Your task to perform on an android device: change alarm snooze length Image 0: 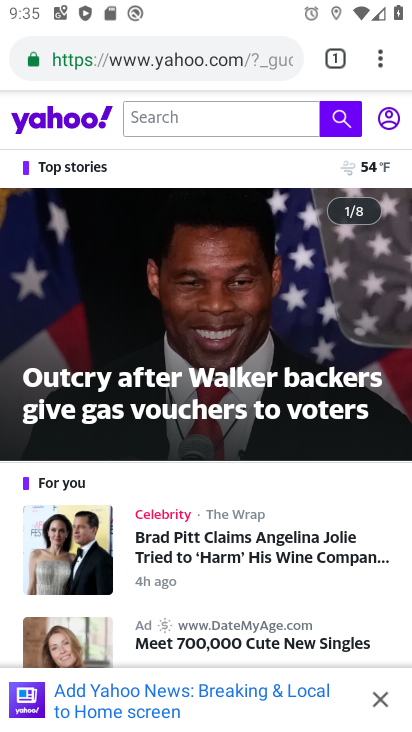
Step 0: press home button
Your task to perform on an android device: change alarm snooze length Image 1: 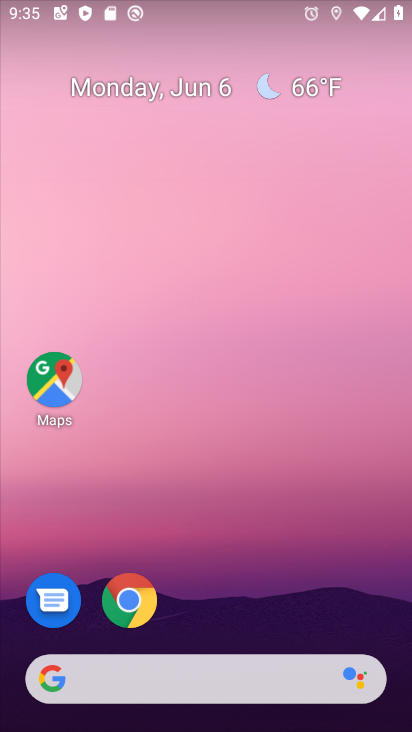
Step 1: drag from (28, 579) to (255, 185)
Your task to perform on an android device: change alarm snooze length Image 2: 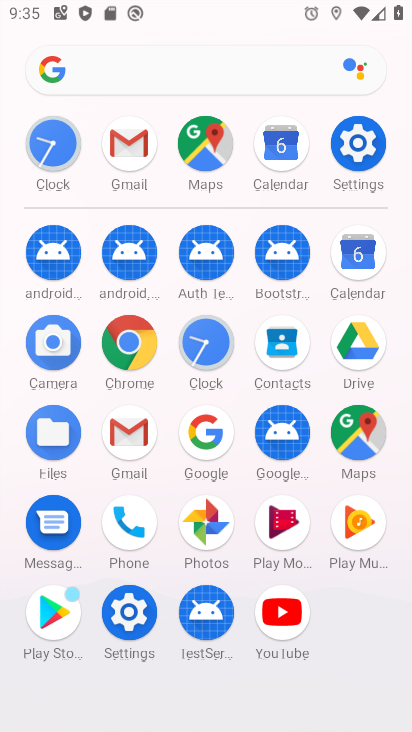
Step 2: click (213, 347)
Your task to perform on an android device: change alarm snooze length Image 3: 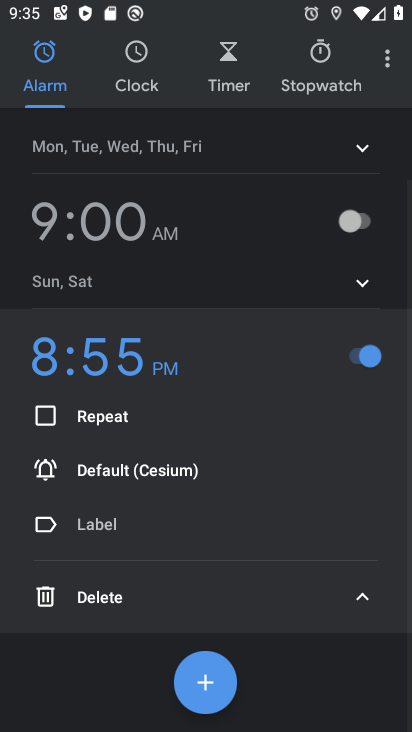
Step 3: click (388, 63)
Your task to perform on an android device: change alarm snooze length Image 4: 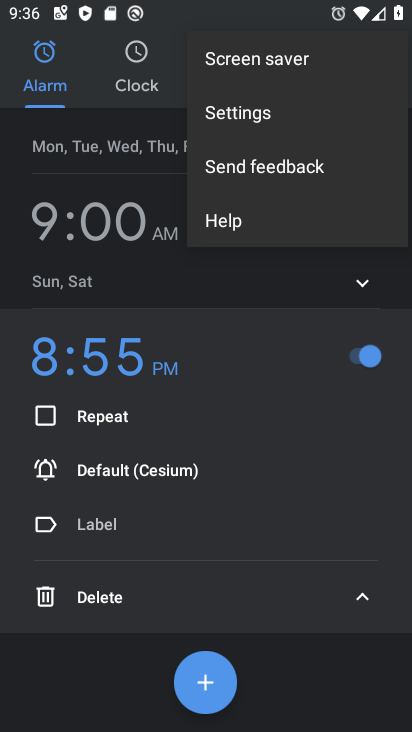
Step 4: click (272, 122)
Your task to perform on an android device: change alarm snooze length Image 5: 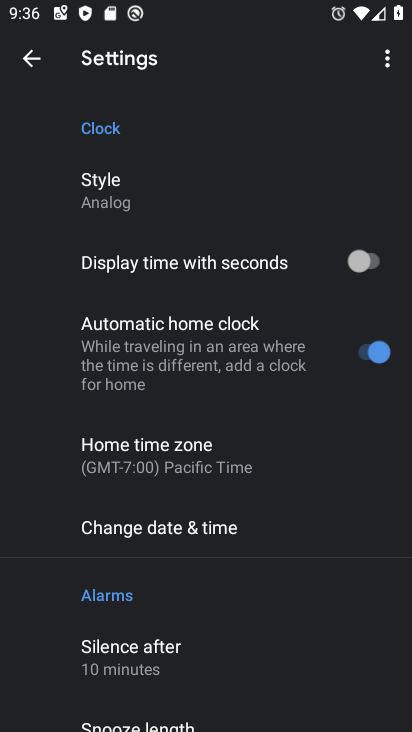
Step 5: drag from (4, 680) to (136, 203)
Your task to perform on an android device: change alarm snooze length Image 6: 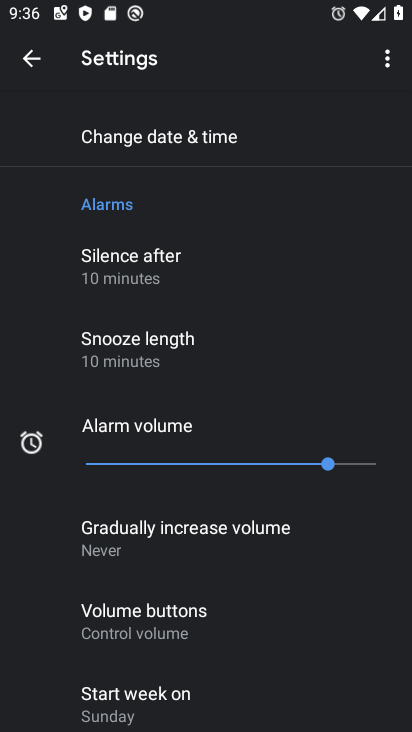
Step 6: click (85, 360)
Your task to perform on an android device: change alarm snooze length Image 7: 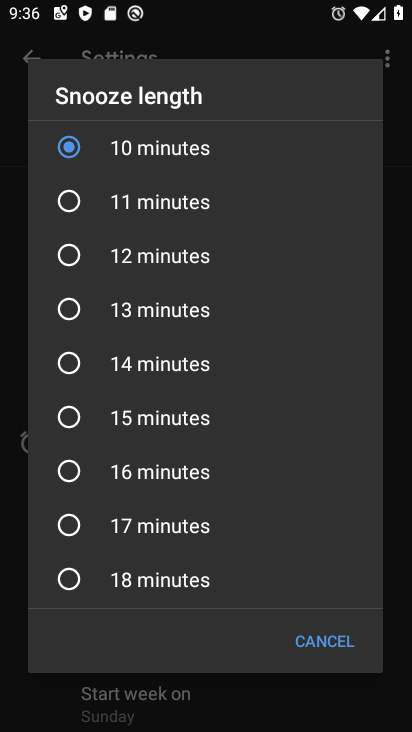
Step 7: click (114, 205)
Your task to perform on an android device: change alarm snooze length Image 8: 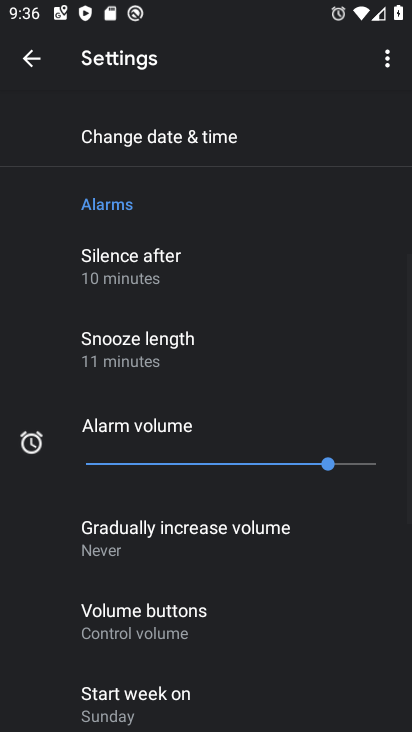
Step 8: task complete